Your task to perform on an android device: Open calendar and show me the first week of next month Image 0: 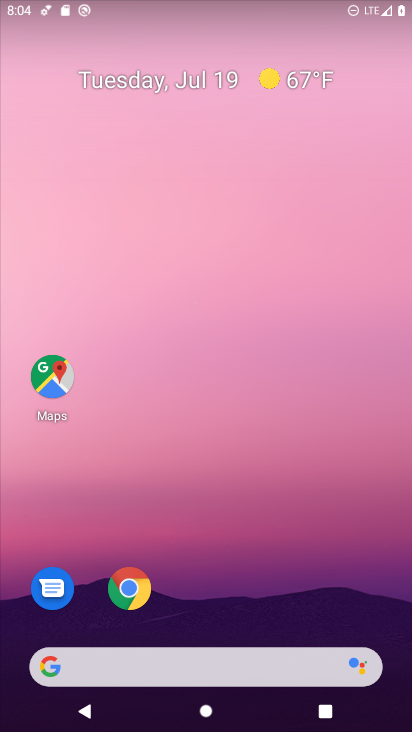
Step 0: drag from (357, 578) to (360, 158)
Your task to perform on an android device: Open calendar and show me the first week of next month Image 1: 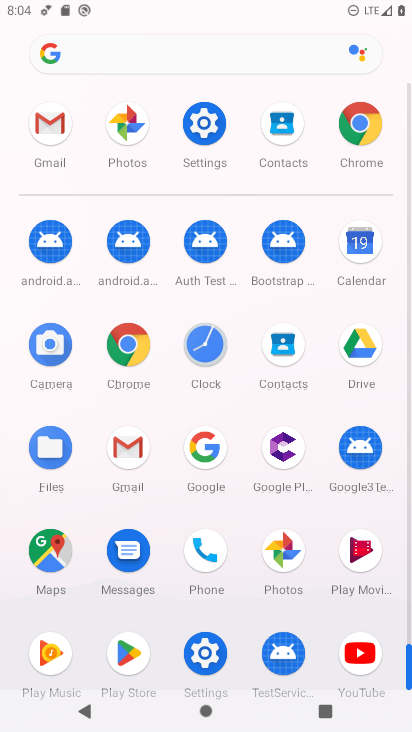
Step 1: click (361, 249)
Your task to perform on an android device: Open calendar and show me the first week of next month Image 2: 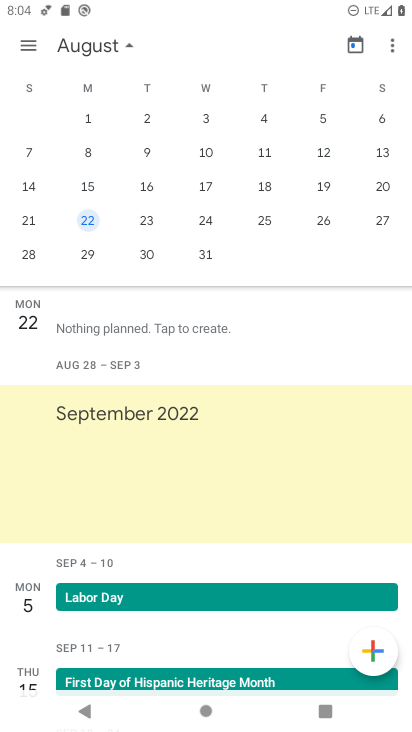
Step 2: click (89, 117)
Your task to perform on an android device: Open calendar and show me the first week of next month Image 3: 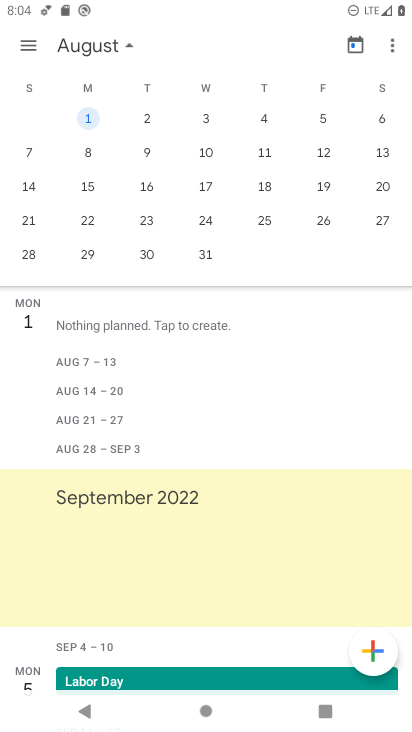
Step 3: task complete